Your task to perform on an android device: Open the Play Movies app and select the watchlist tab. Image 0: 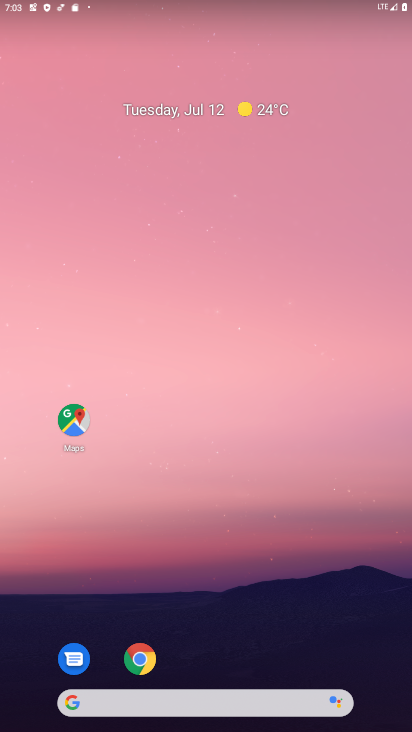
Step 0: drag from (359, 666) to (206, 6)
Your task to perform on an android device: Open the Play Movies app and select the watchlist tab. Image 1: 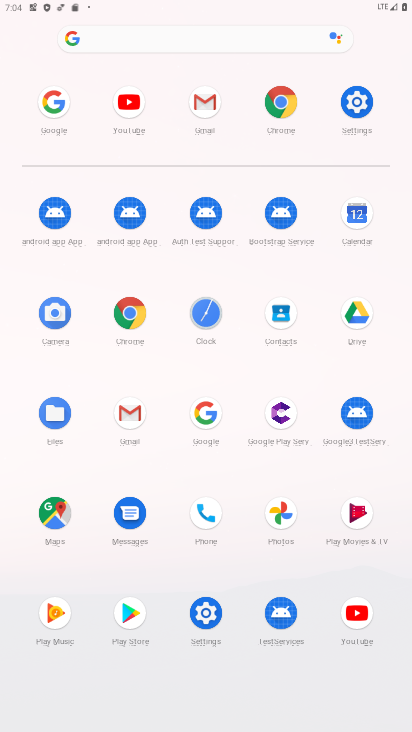
Step 1: click (345, 520)
Your task to perform on an android device: Open the Play Movies app and select the watchlist tab. Image 2: 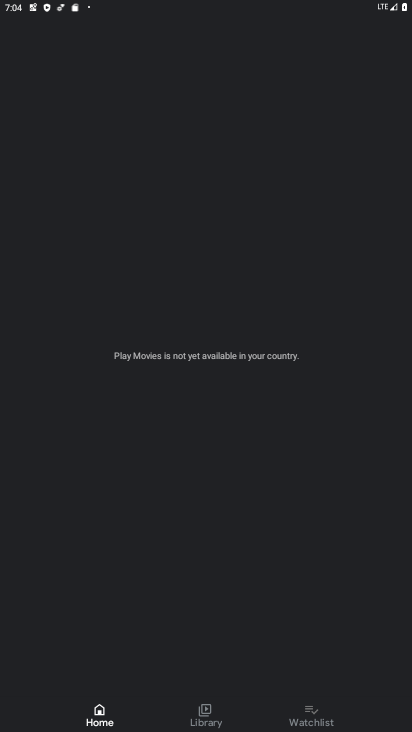
Step 2: click (310, 713)
Your task to perform on an android device: Open the Play Movies app and select the watchlist tab. Image 3: 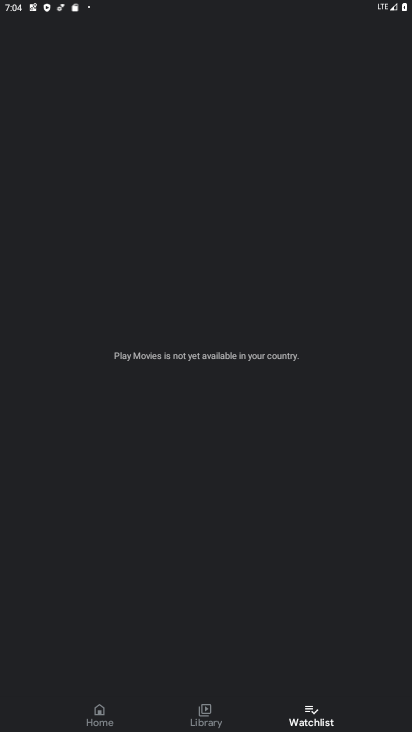
Step 3: task complete